Your task to perform on an android device: Open Google Chrome and click the shortcut for Amazon.com Image 0: 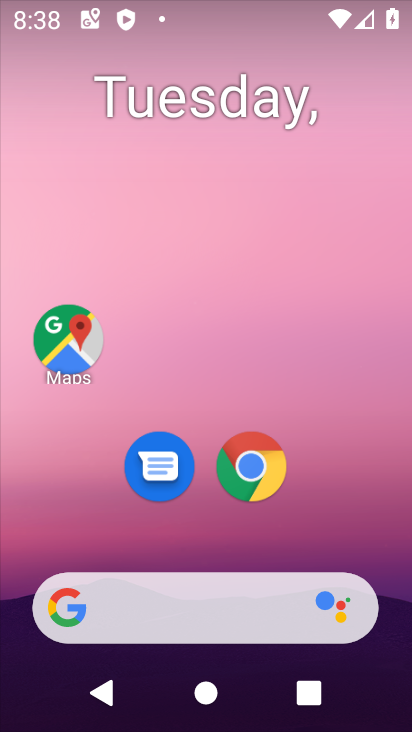
Step 0: click (268, 469)
Your task to perform on an android device: Open Google Chrome and click the shortcut for Amazon.com Image 1: 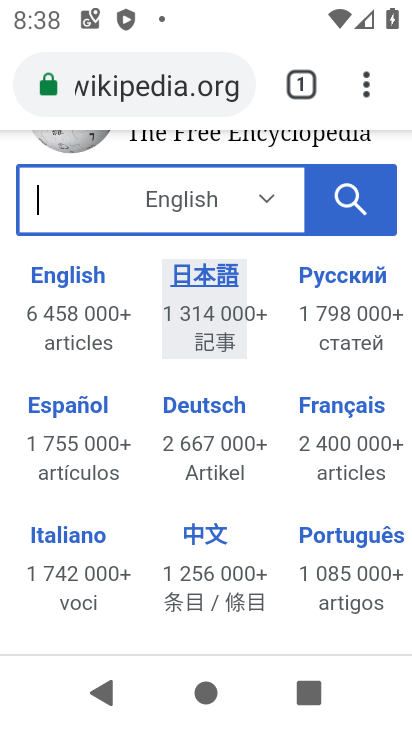
Step 1: click (359, 89)
Your task to perform on an android device: Open Google Chrome and click the shortcut for Amazon.com Image 2: 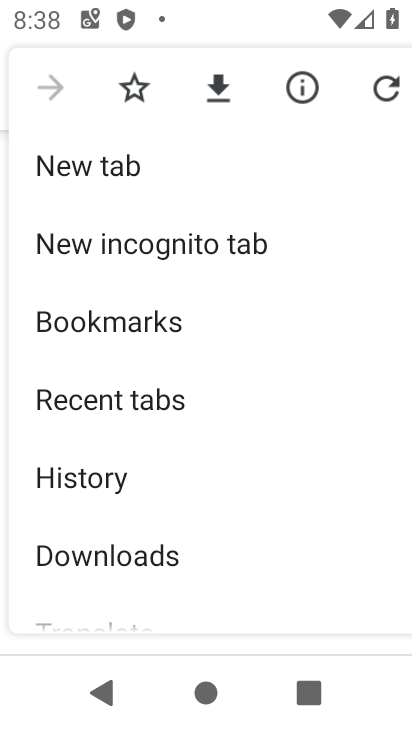
Step 2: click (142, 166)
Your task to perform on an android device: Open Google Chrome and click the shortcut for Amazon.com Image 3: 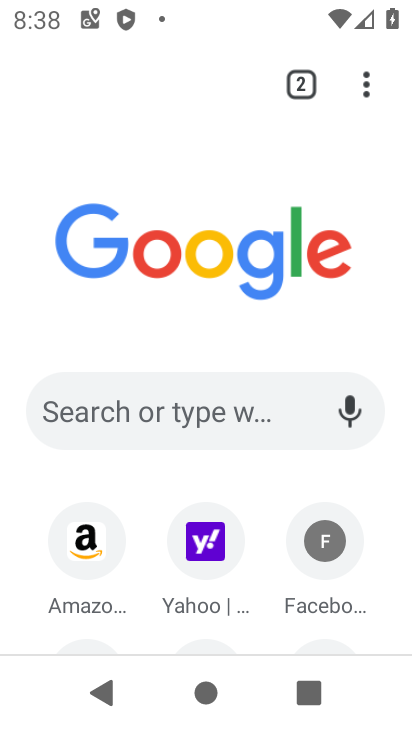
Step 3: click (80, 538)
Your task to perform on an android device: Open Google Chrome and click the shortcut for Amazon.com Image 4: 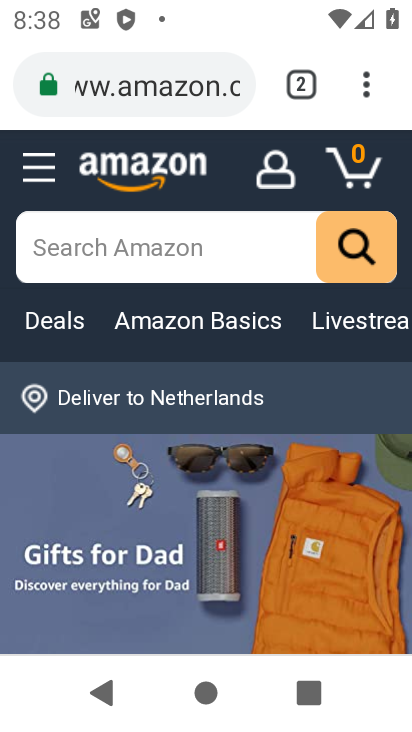
Step 4: task complete